Your task to perform on an android device: Search for Italian restaurants on Maps Image 0: 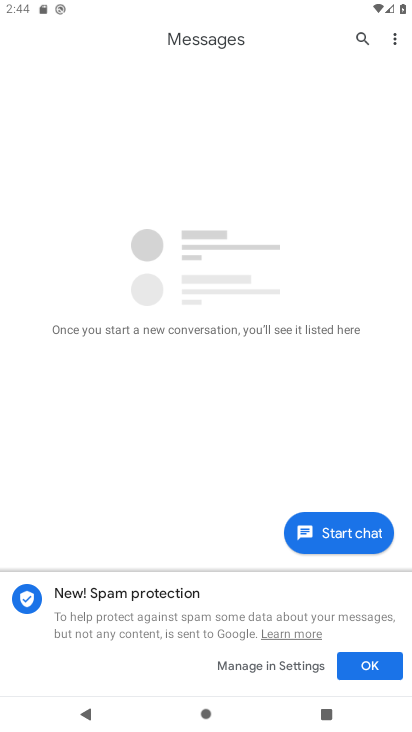
Step 0: press home button
Your task to perform on an android device: Search for Italian restaurants on Maps Image 1: 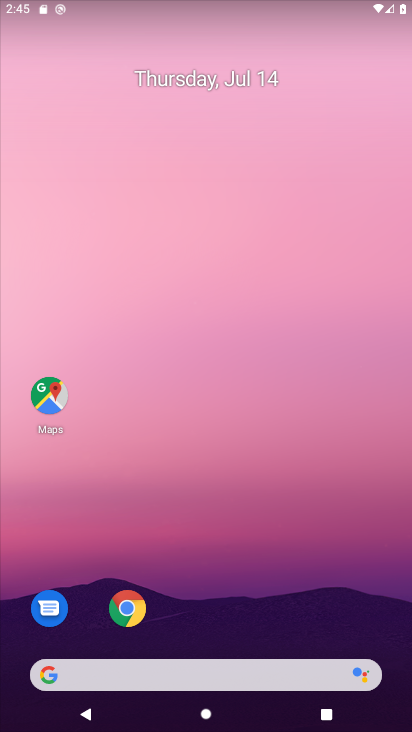
Step 1: drag from (250, 612) to (250, 7)
Your task to perform on an android device: Search for Italian restaurants on Maps Image 2: 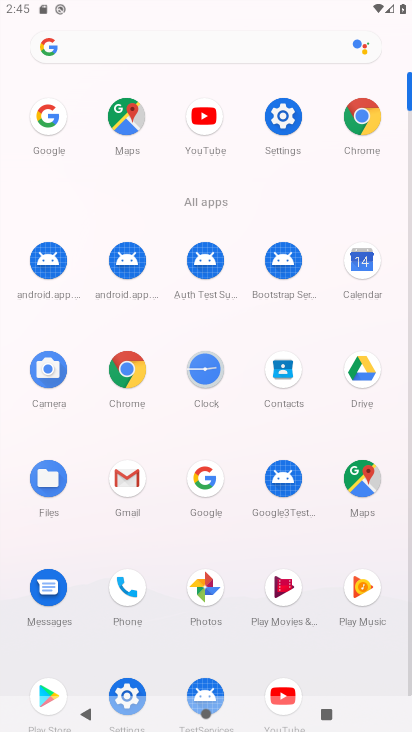
Step 2: click (365, 500)
Your task to perform on an android device: Search for Italian restaurants on Maps Image 3: 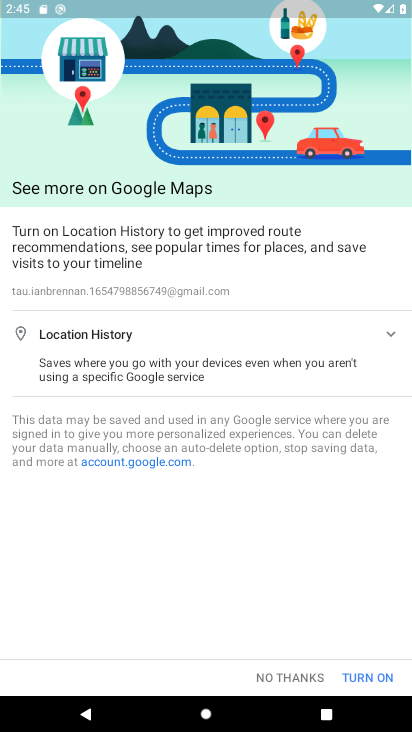
Step 3: click (139, 40)
Your task to perform on an android device: Search for Italian restaurants on Maps Image 4: 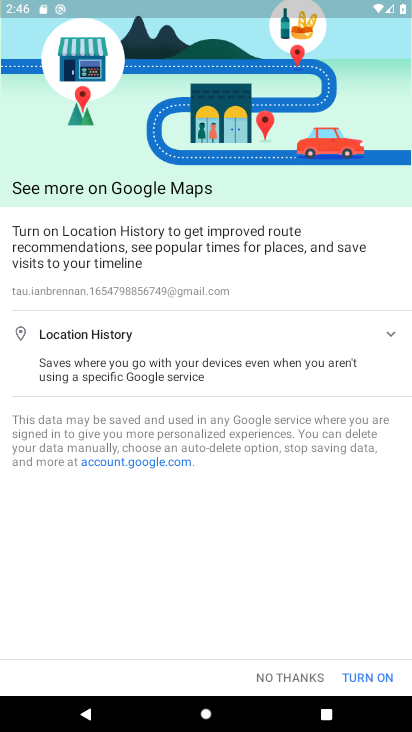
Step 4: click (295, 668)
Your task to perform on an android device: Search for Italian restaurants on Maps Image 5: 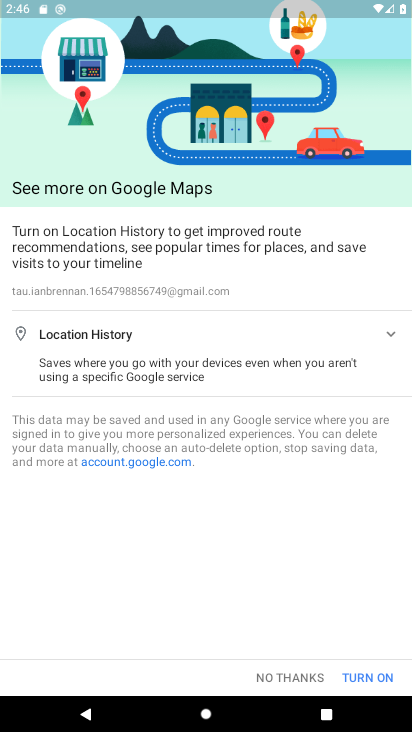
Step 5: click (298, 675)
Your task to perform on an android device: Search for Italian restaurants on Maps Image 6: 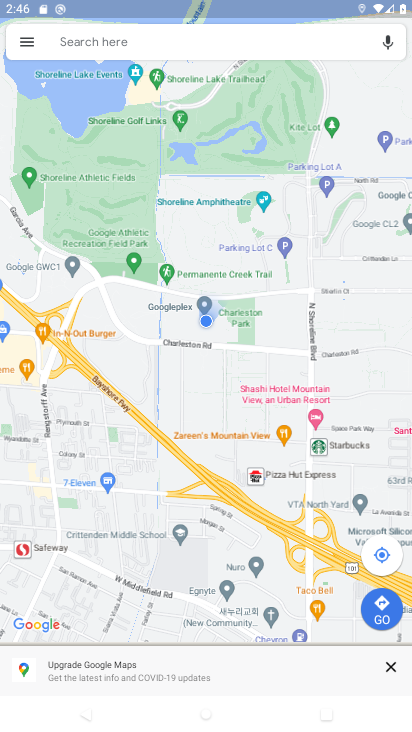
Step 6: click (119, 37)
Your task to perform on an android device: Search for Italian restaurants on Maps Image 7: 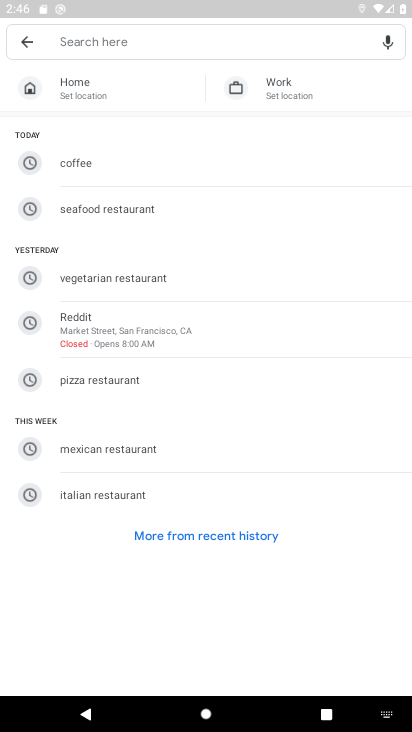
Step 7: type " Italian restaurants"
Your task to perform on an android device: Search for Italian restaurants on Maps Image 8: 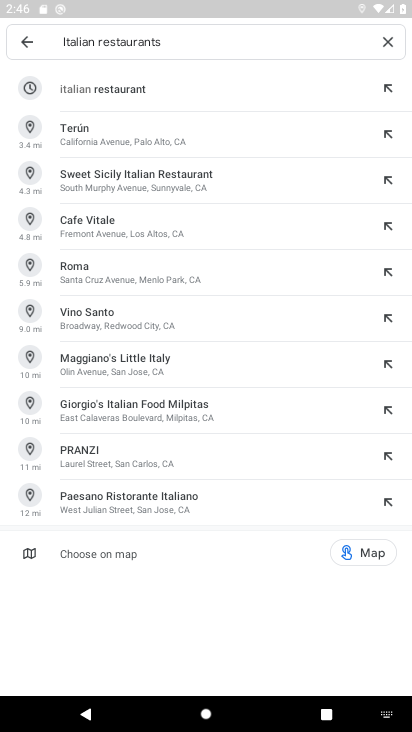
Step 8: click (63, 85)
Your task to perform on an android device: Search for Italian restaurants on Maps Image 9: 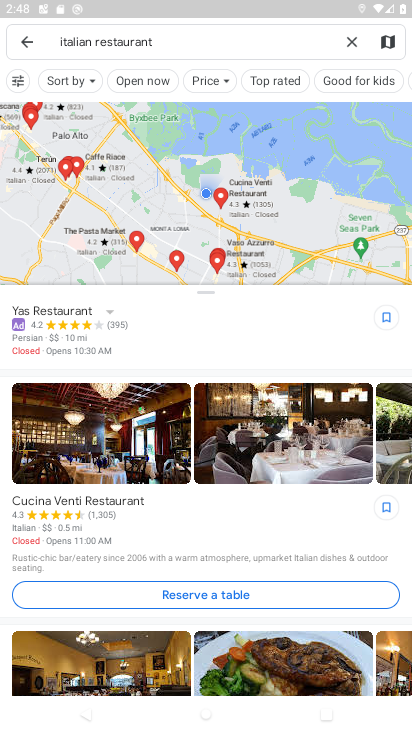
Step 9: task complete